Your task to perform on an android device: show emergency info Image 0: 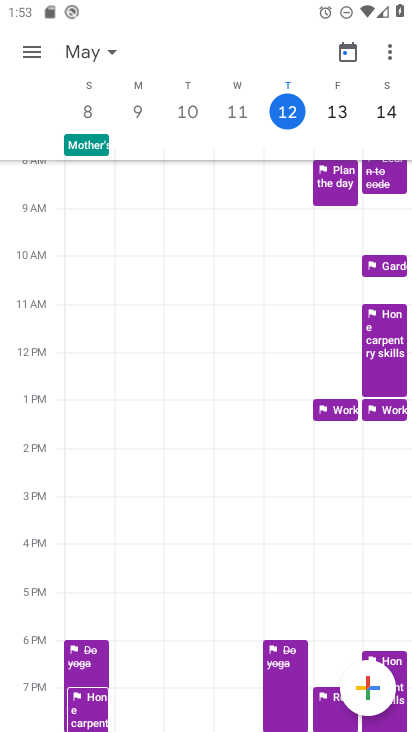
Step 0: press home button
Your task to perform on an android device: show emergency info Image 1: 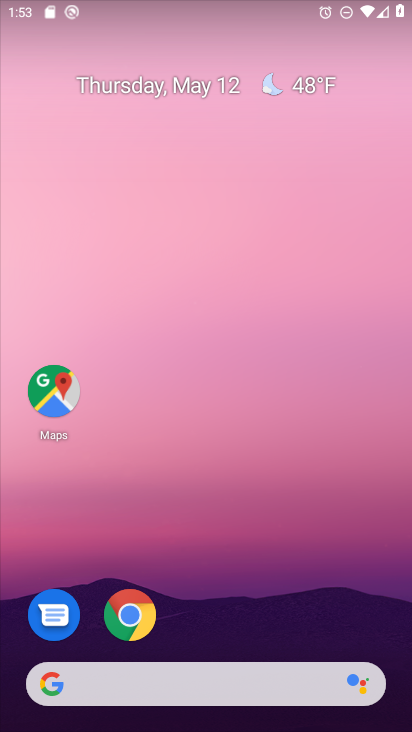
Step 1: drag from (230, 719) to (303, 61)
Your task to perform on an android device: show emergency info Image 2: 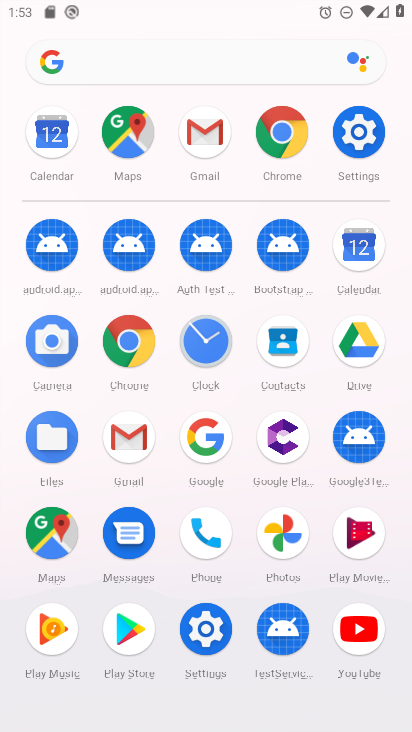
Step 2: click (357, 129)
Your task to perform on an android device: show emergency info Image 3: 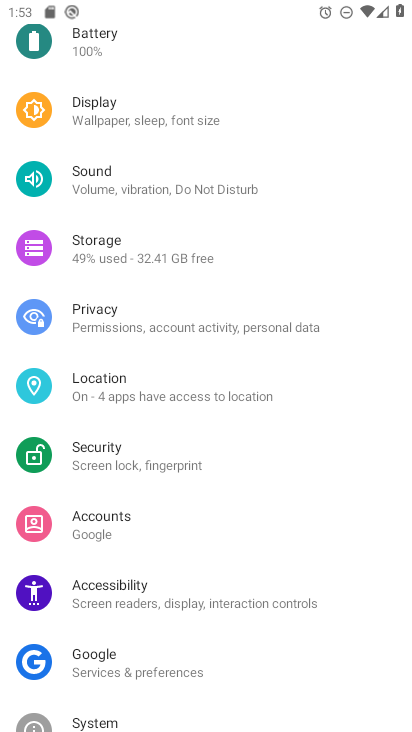
Step 3: drag from (267, 693) to (342, 26)
Your task to perform on an android device: show emergency info Image 4: 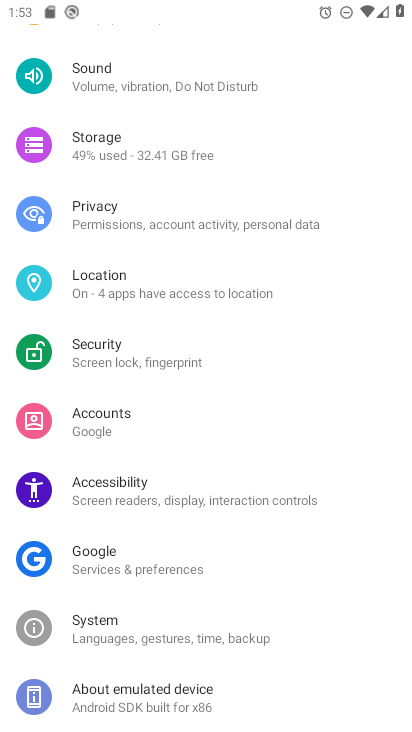
Step 4: drag from (193, 664) to (275, 293)
Your task to perform on an android device: show emergency info Image 5: 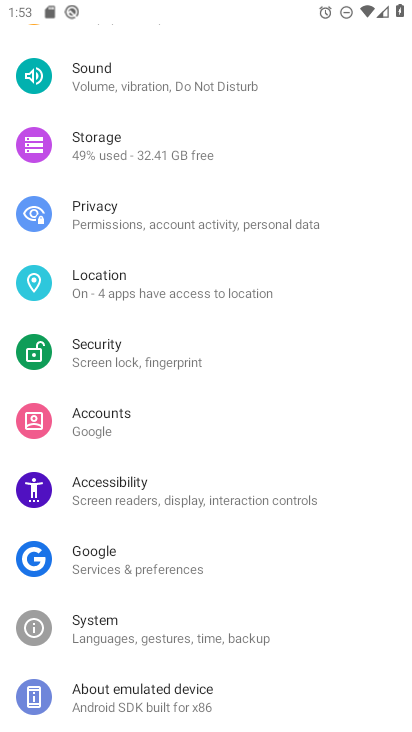
Step 5: click (207, 694)
Your task to perform on an android device: show emergency info Image 6: 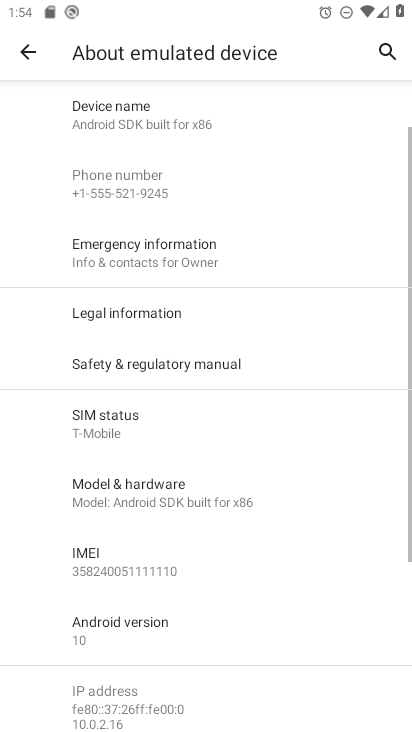
Step 6: click (248, 263)
Your task to perform on an android device: show emergency info Image 7: 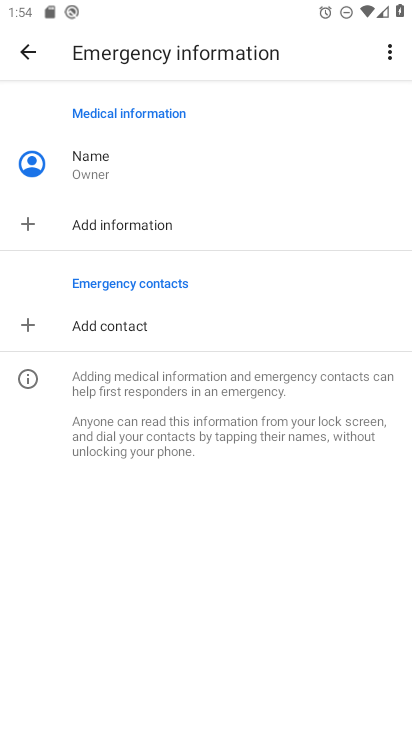
Step 7: task complete